Your task to perform on an android device: Go to privacy settings Image 0: 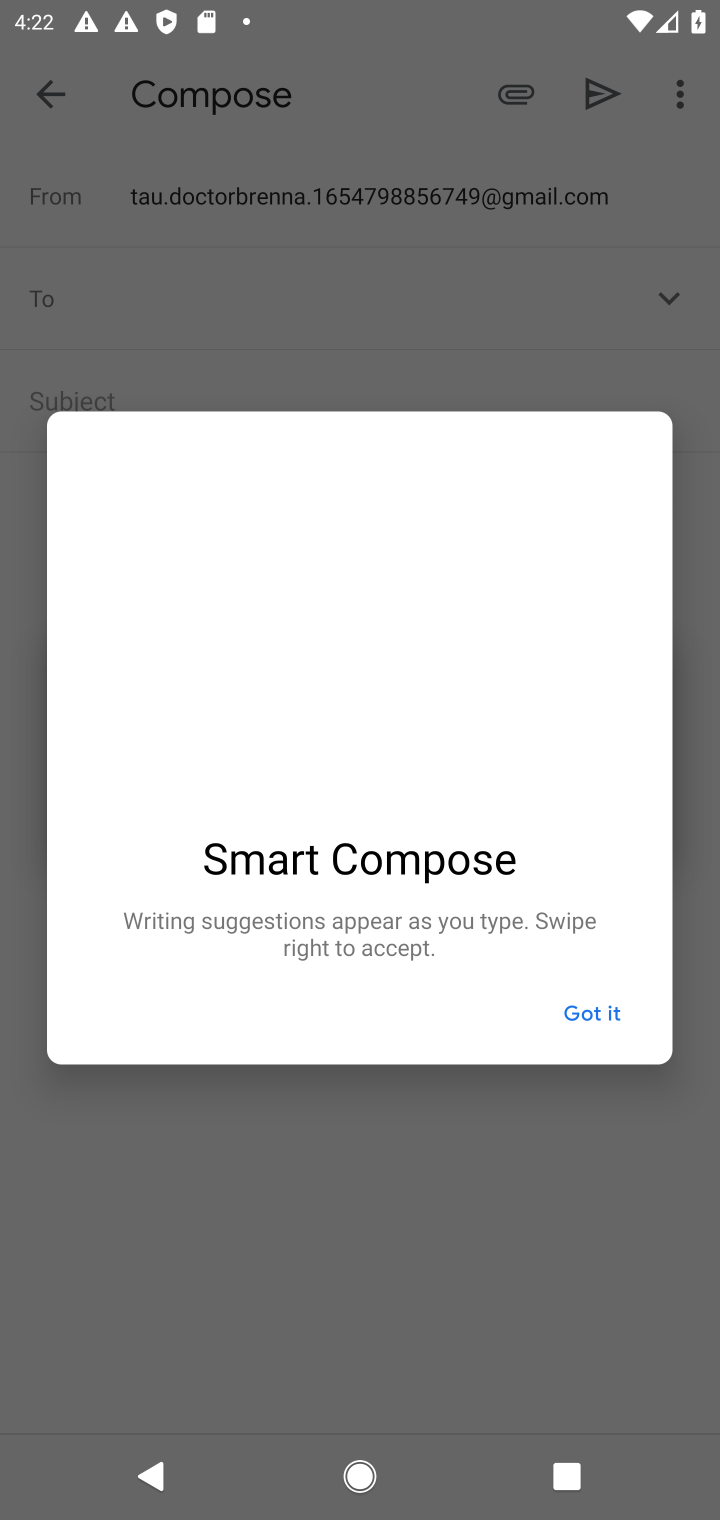
Step 0: press home button
Your task to perform on an android device: Go to privacy settings Image 1: 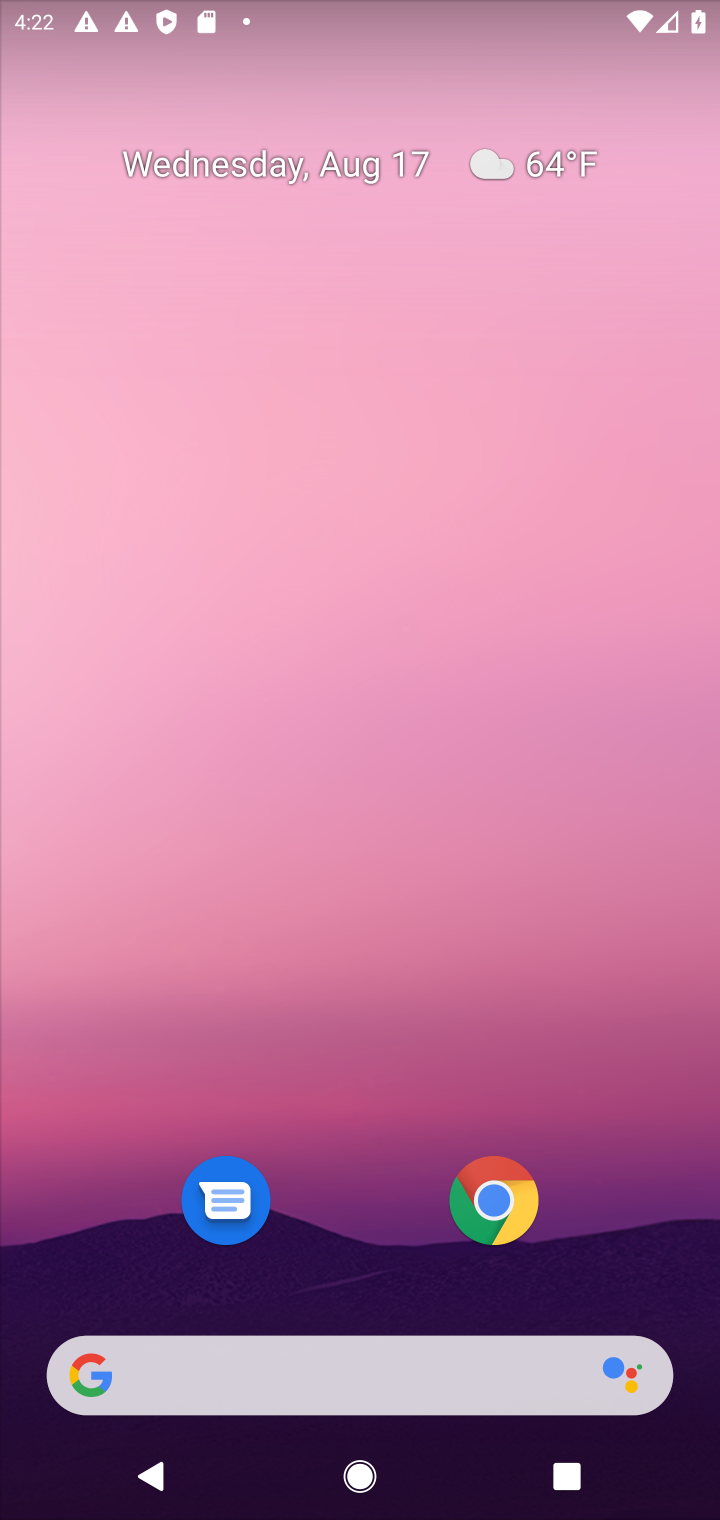
Step 1: drag from (380, 1113) to (389, 197)
Your task to perform on an android device: Go to privacy settings Image 2: 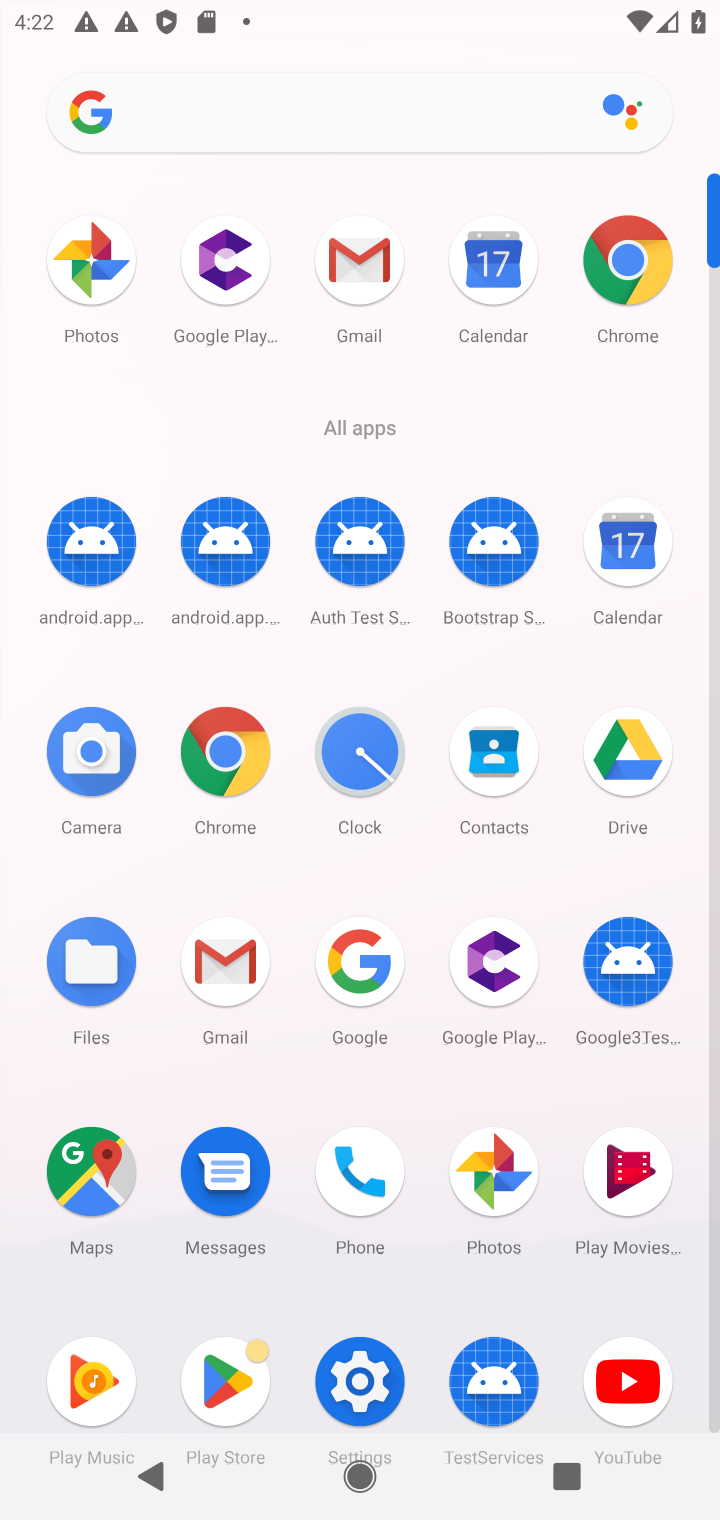
Step 2: click (359, 1388)
Your task to perform on an android device: Go to privacy settings Image 3: 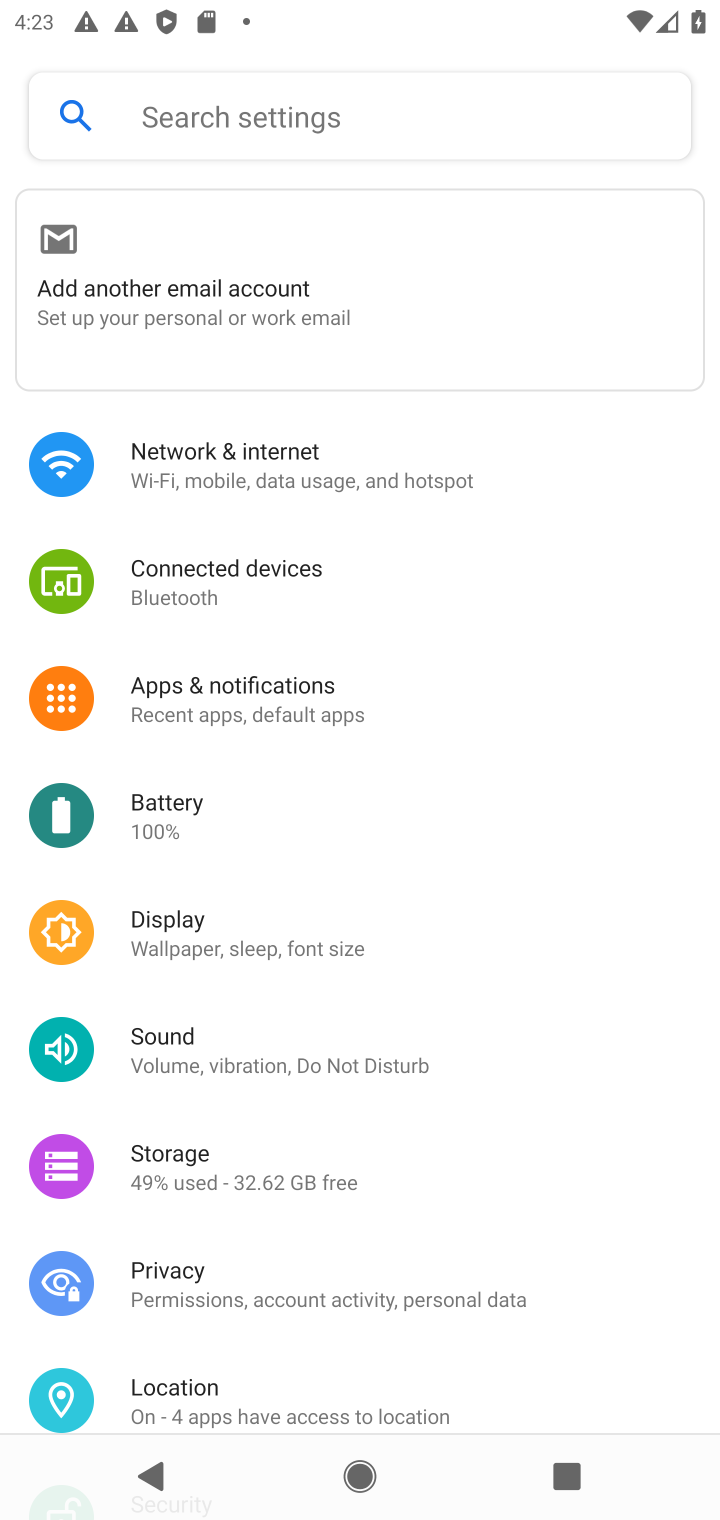
Step 3: click (185, 1275)
Your task to perform on an android device: Go to privacy settings Image 4: 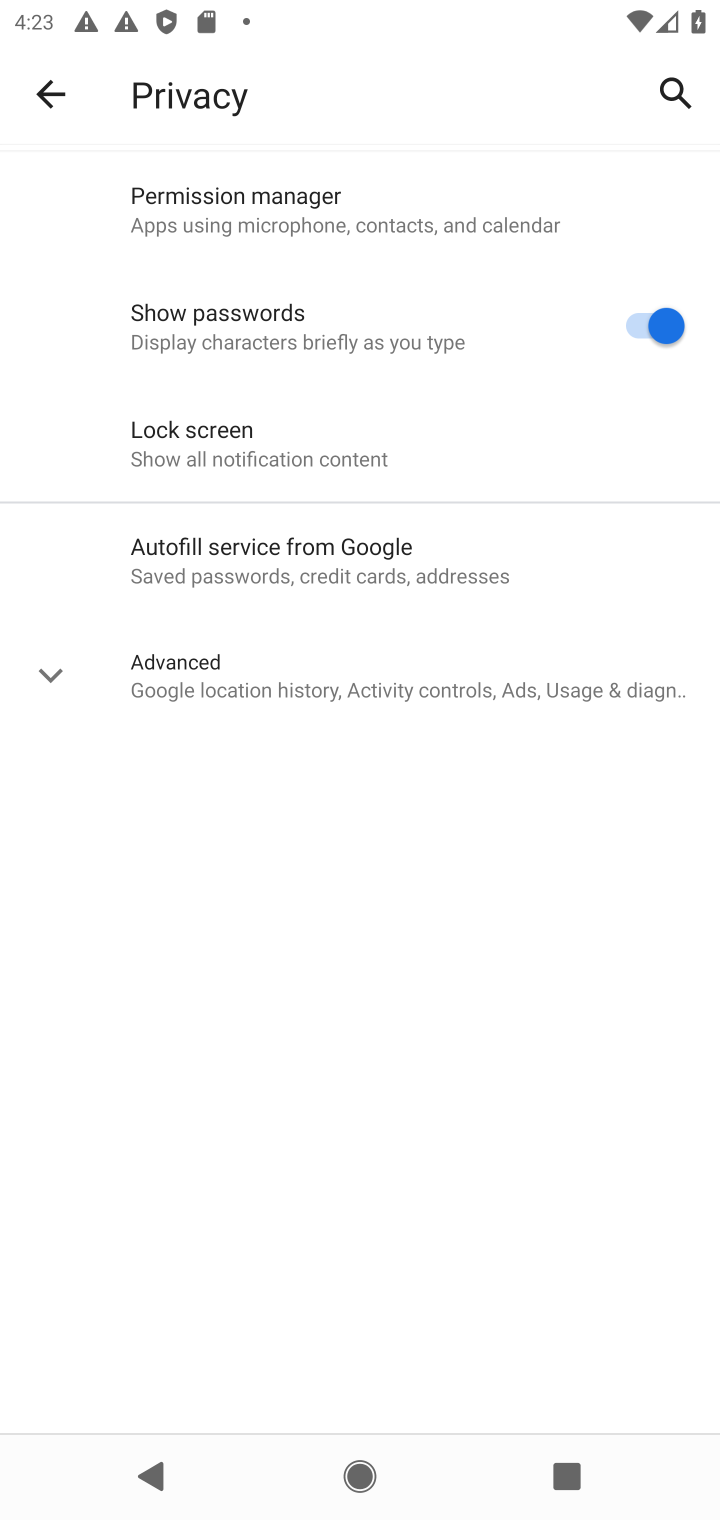
Step 4: task complete